Your task to perform on an android device: Is it going to rain today? Image 0: 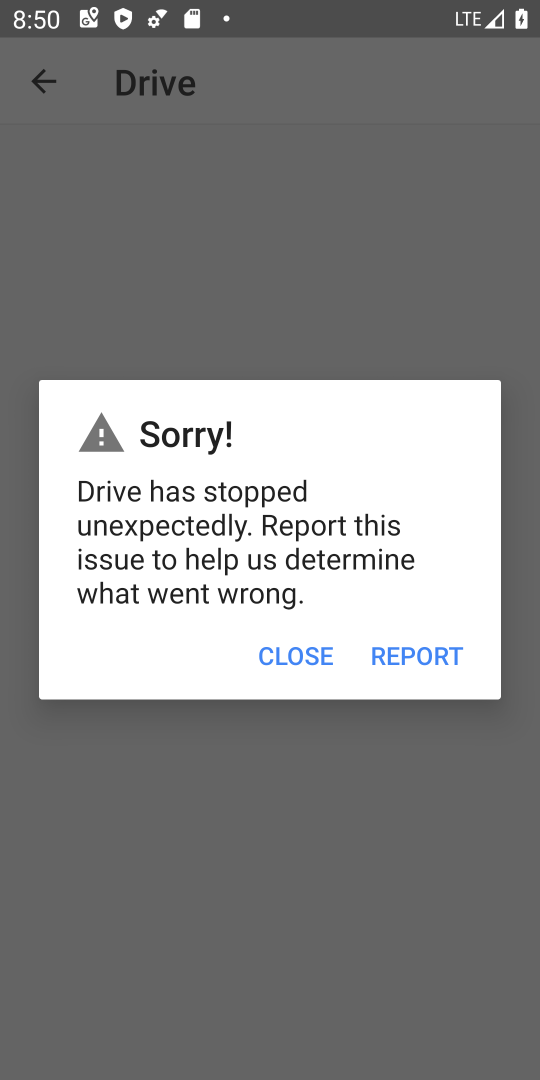
Step 0: press home button
Your task to perform on an android device: Is it going to rain today? Image 1: 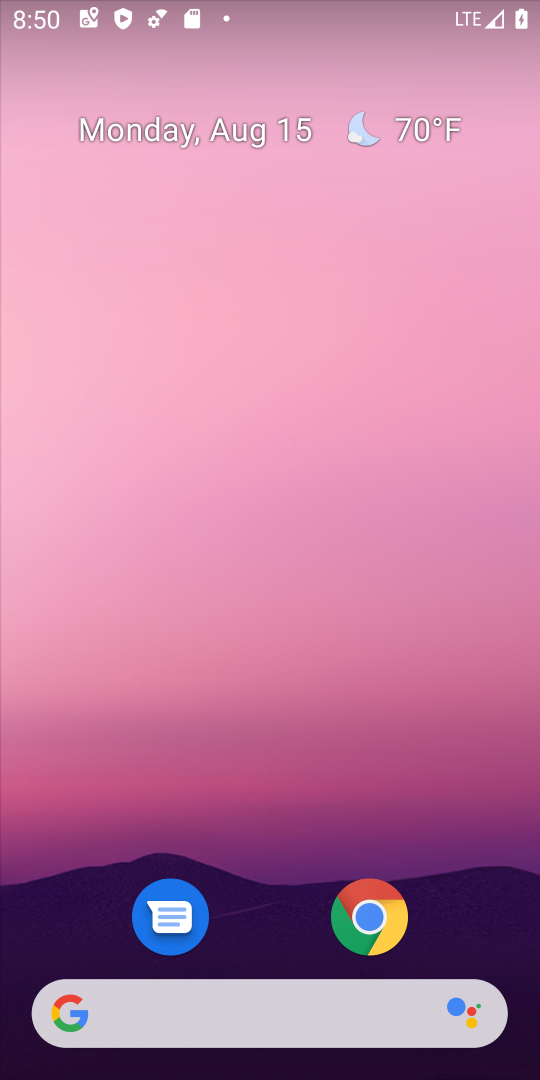
Step 1: click (415, 133)
Your task to perform on an android device: Is it going to rain today? Image 2: 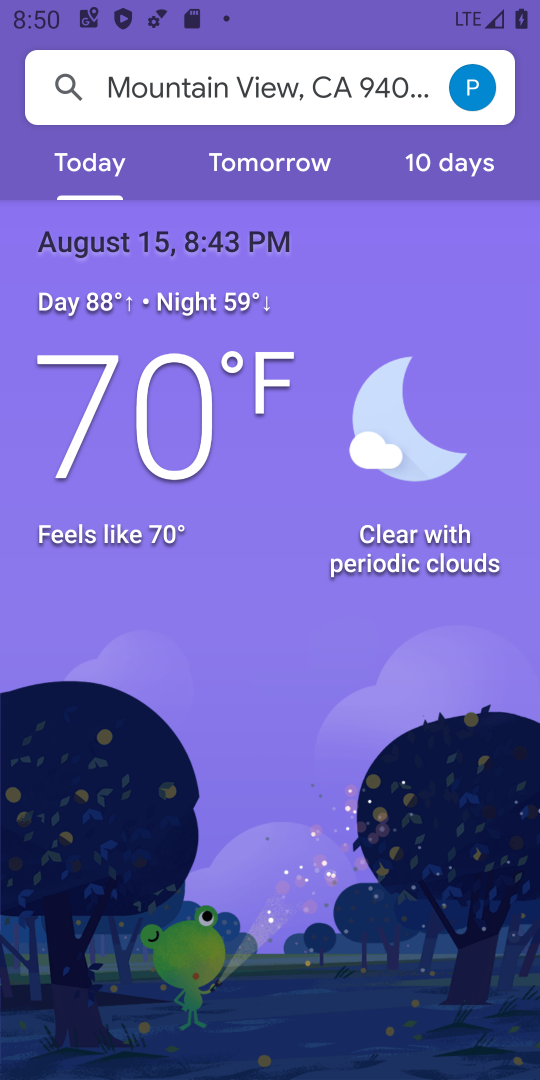
Step 2: task complete